Your task to perform on an android device: star an email in the gmail app Image 0: 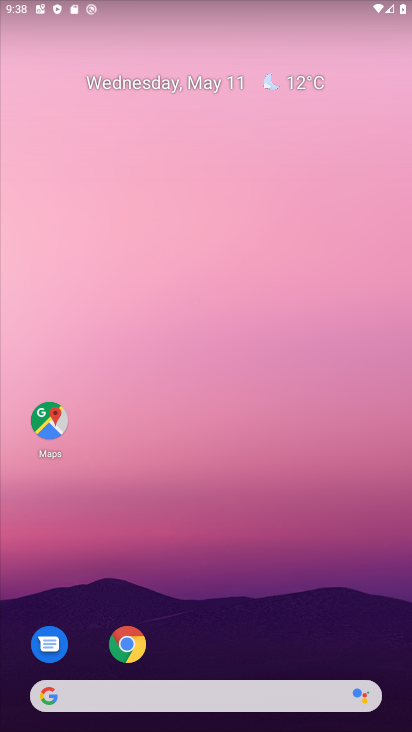
Step 0: drag from (297, 587) to (267, 82)
Your task to perform on an android device: star an email in the gmail app Image 1: 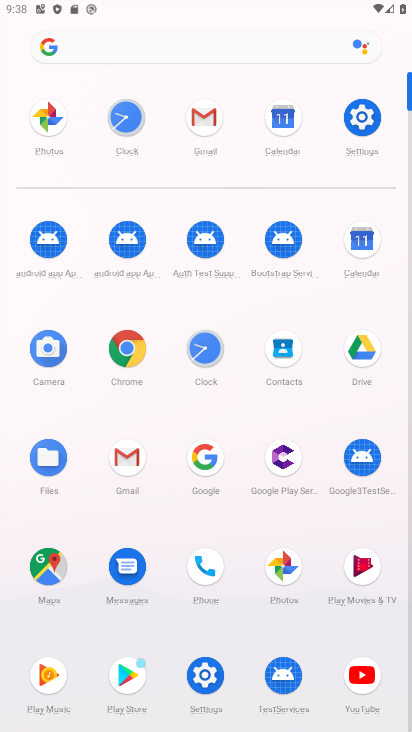
Step 1: click (358, 139)
Your task to perform on an android device: star an email in the gmail app Image 2: 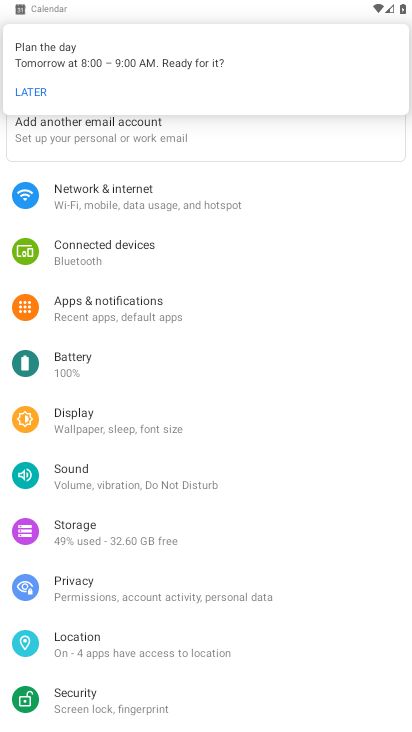
Step 2: press home button
Your task to perform on an android device: star an email in the gmail app Image 3: 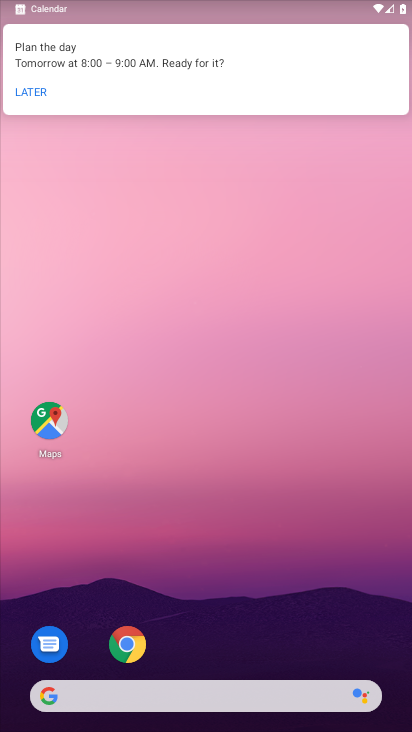
Step 3: drag from (289, 600) to (289, 223)
Your task to perform on an android device: star an email in the gmail app Image 4: 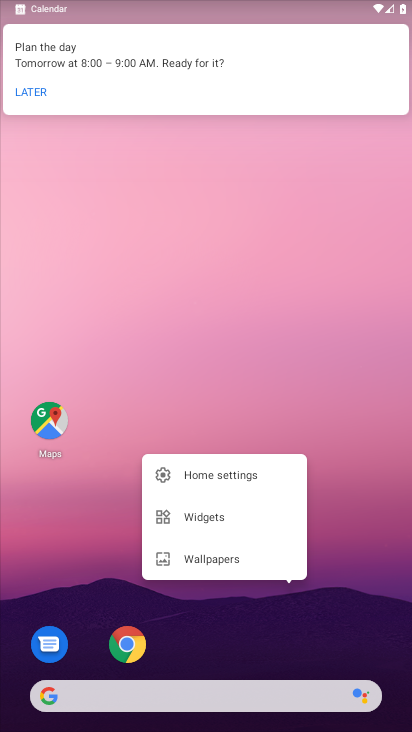
Step 4: click (341, 594)
Your task to perform on an android device: star an email in the gmail app Image 5: 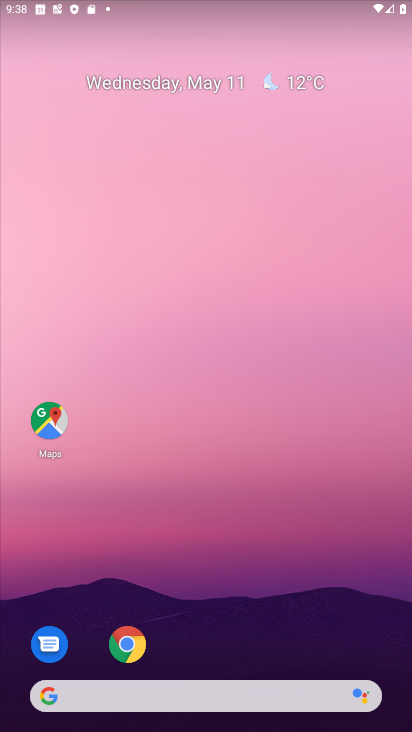
Step 5: drag from (272, 643) to (276, 201)
Your task to perform on an android device: star an email in the gmail app Image 6: 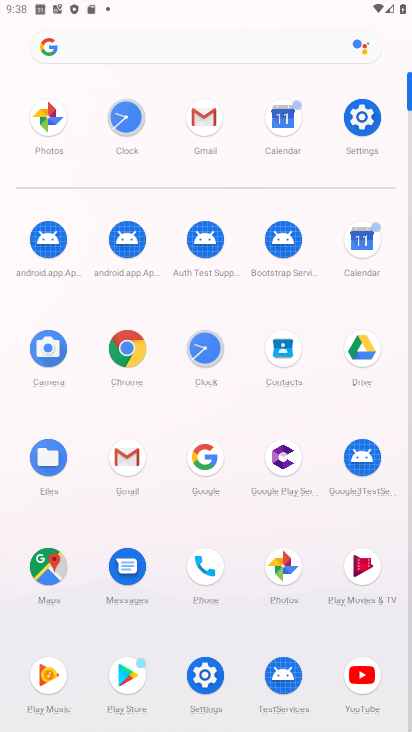
Step 6: click (210, 144)
Your task to perform on an android device: star an email in the gmail app Image 7: 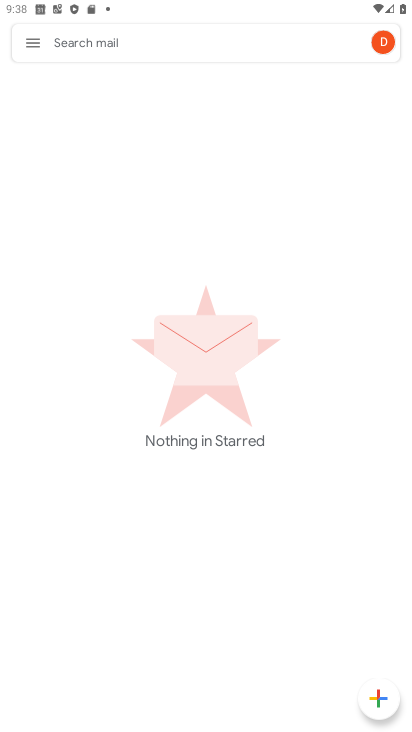
Step 7: click (26, 42)
Your task to perform on an android device: star an email in the gmail app Image 8: 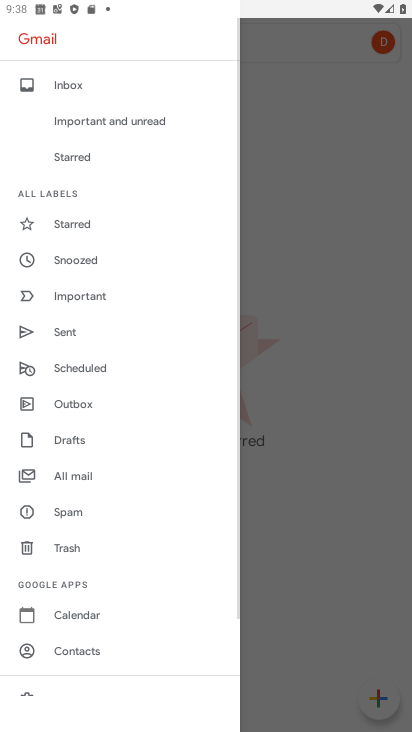
Step 8: click (83, 207)
Your task to perform on an android device: star an email in the gmail app Image 9: 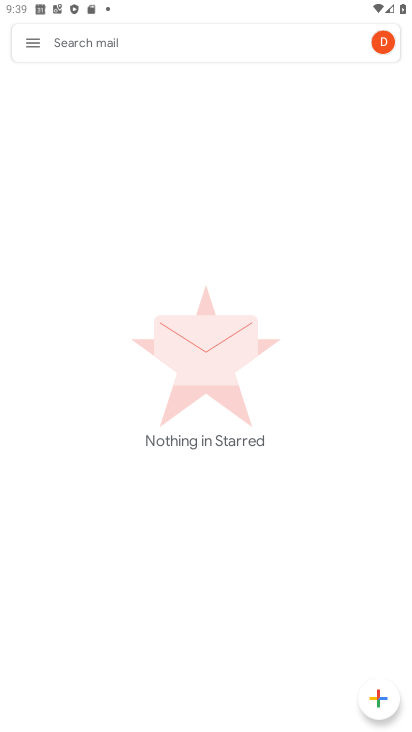
Step 9: task complete